Your task to perform on an android device: Search for pizza restaurants on Maps Image 0: 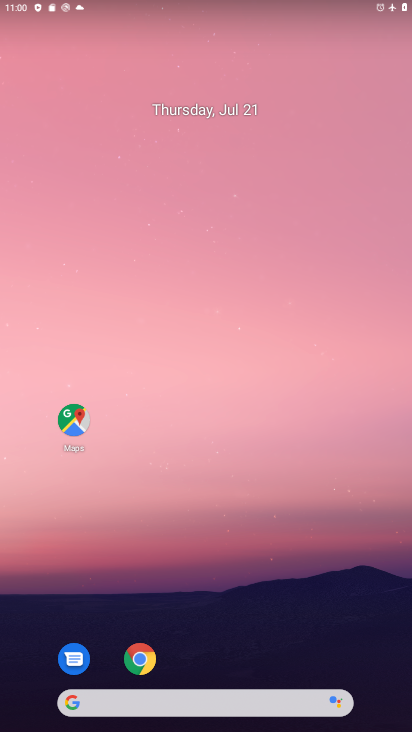
Step 0: click (72, 440)
Your task to perform on an android device: Search for pizza restaurants on Maps Image 1: 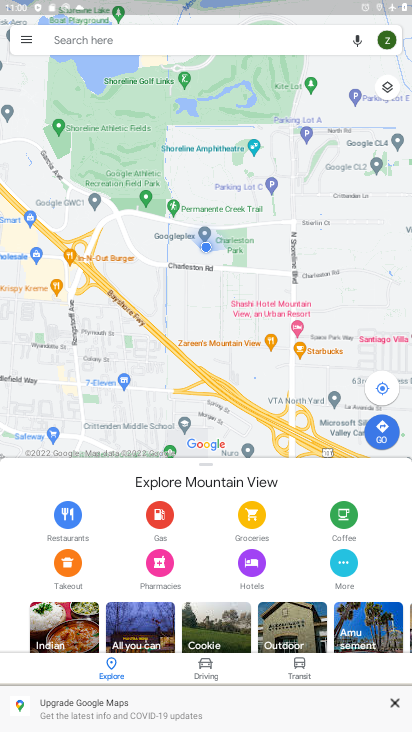
Step 1: click (171, 28)
Your task to perform on an android device: Search for pizza restaurants on Maps Image 2: 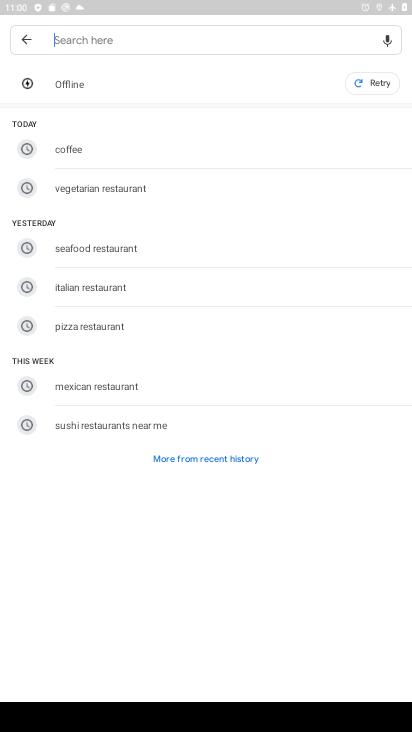
Step 2: click (144, 325)
Your task to perform on an android device: Search for pizza restaurants on Maps Image 3: 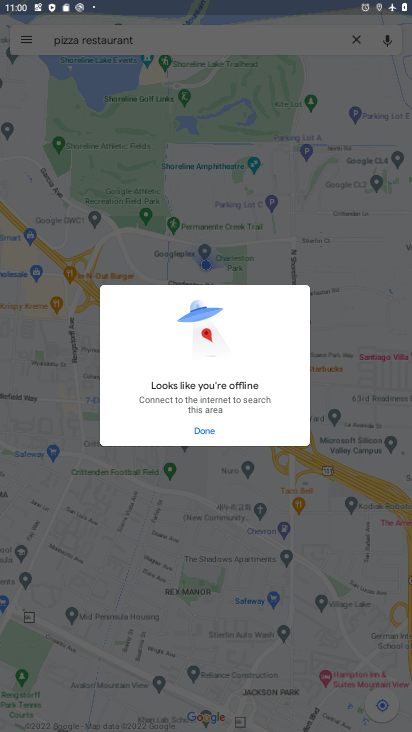
Step 3: task complete